Your task to perform on an android device: change the clock display to digital Image 0: 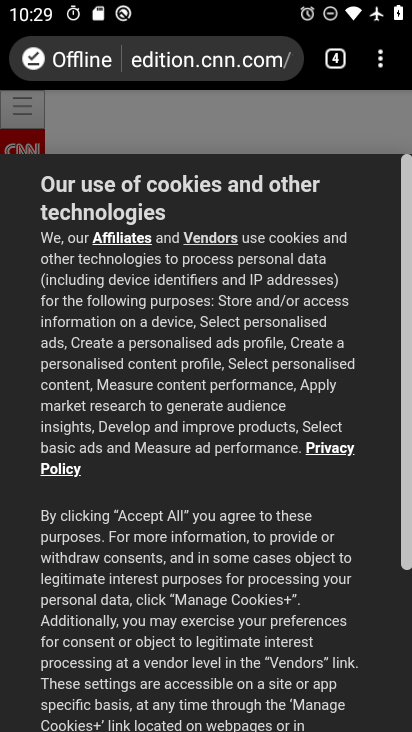
Step 0: press home button
Your task to perform on an android device: change the clock display to digital Image 1: 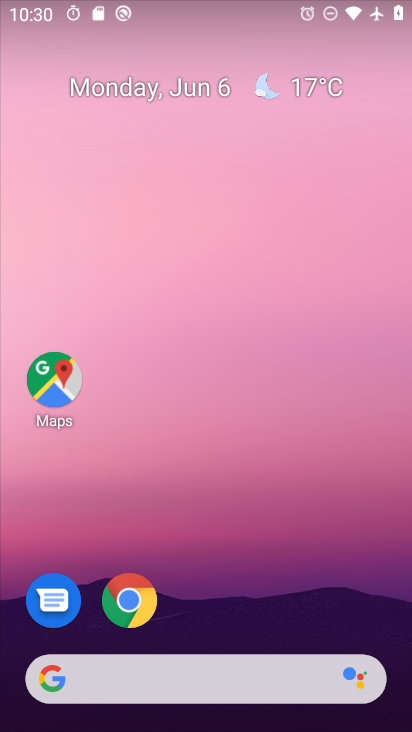
Step 1: drag from (303, 579) to (258, 0)
Your task to perform on an android device: change the clock display to digital Image 2: 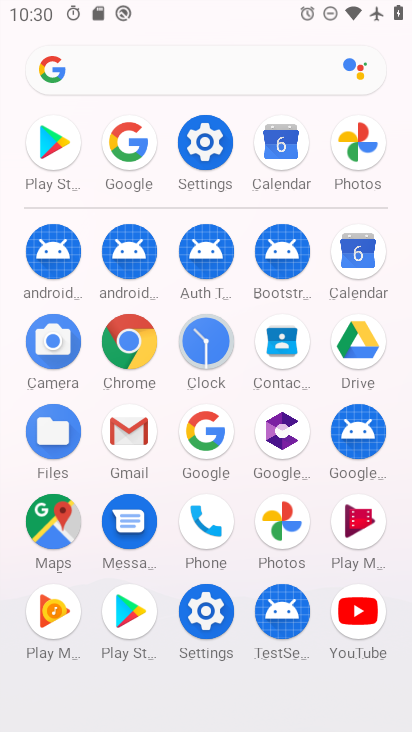
Step 2: click (214, 348)
Your task to perform on an android device: change the clock display to digital Image 3: 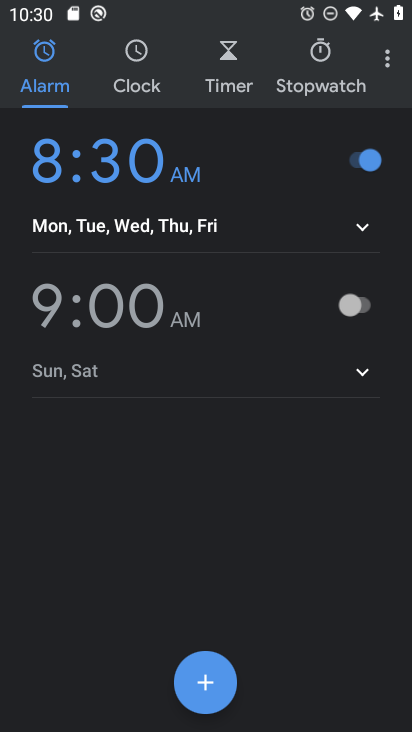
Step 3: click (382, 67)
Your task to perform on an android device: change the clock display to digital Image 4: 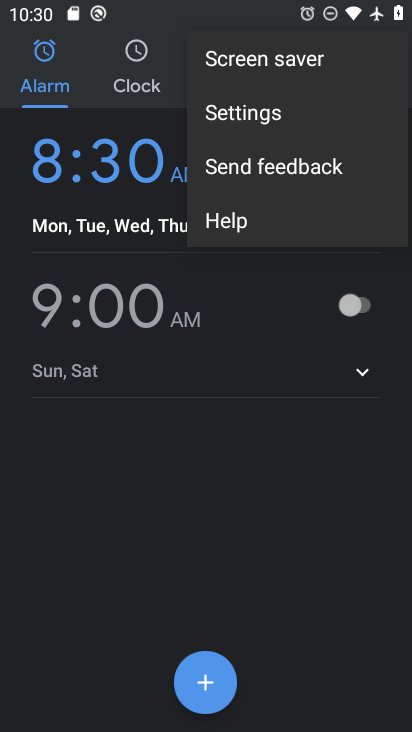
Step 4: click (275, 100)
Your task to perform on an android device: change the clock display to digital Image 5: 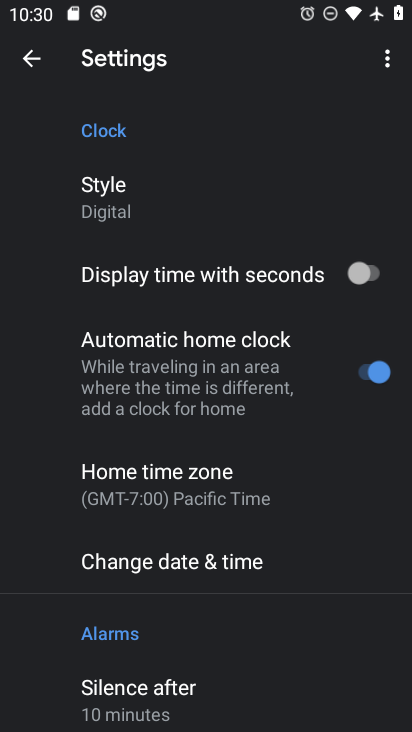
Step 5: click (195, 199)
Your task to perform on an android device: change the clock display to digital Image 6: 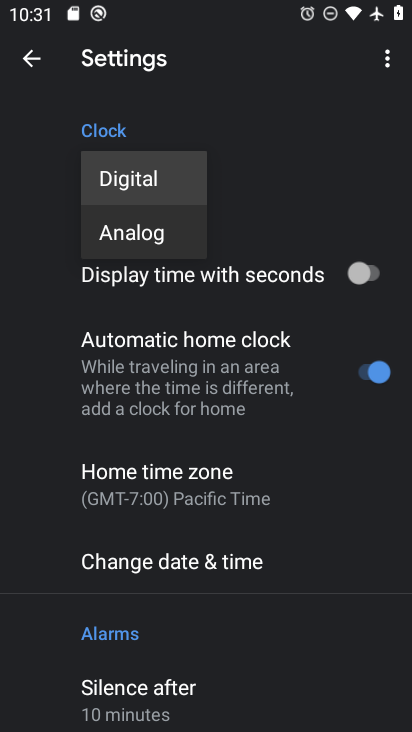
Step 6: click (153, 180)
Your task to perform on an android device: change the clock display to digital Image 7: 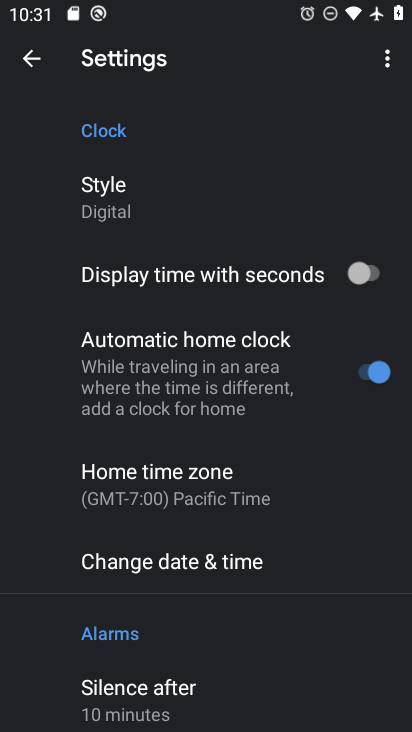
Step 7: task complete